Your task to perform on an android device: Show me recent news Image 0: 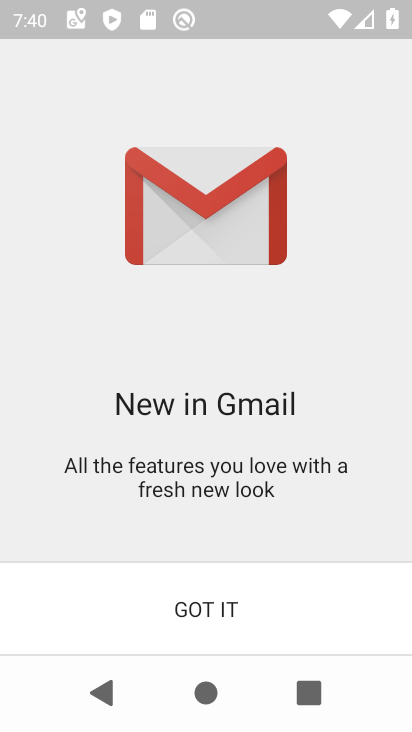
Step 0: press home button
Your task to perform on an android device: Show me recent news Image 1: 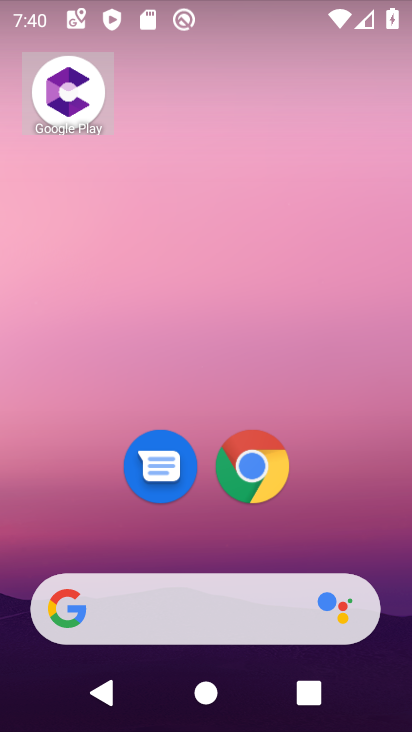
Step 1: drag from (386, 565) to (335, 36)
Your task to perform on an android device: Show me recent news Image 2: 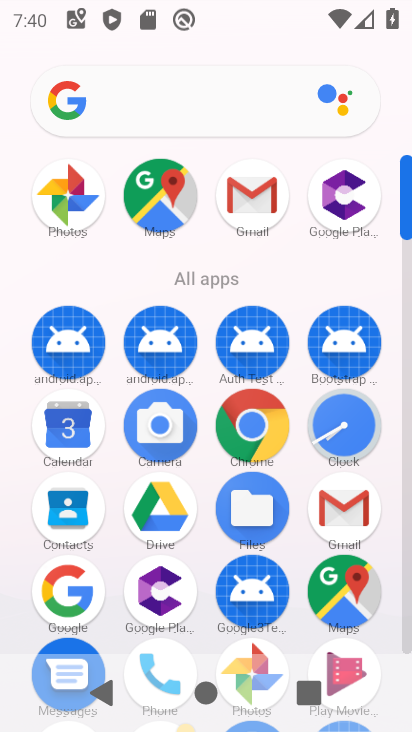
Step 2: click (249, 419)
Your task to perform on an android device: Show me recent news Image 3: 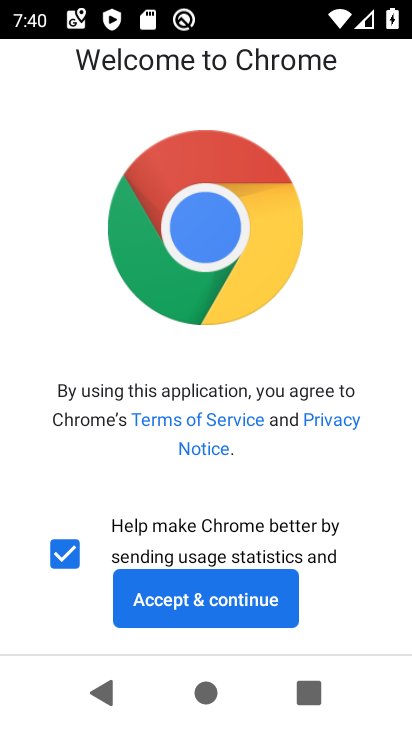
Step 3: click (259, 589)
Your task to perform on an android device: Show me recent news Image 4: 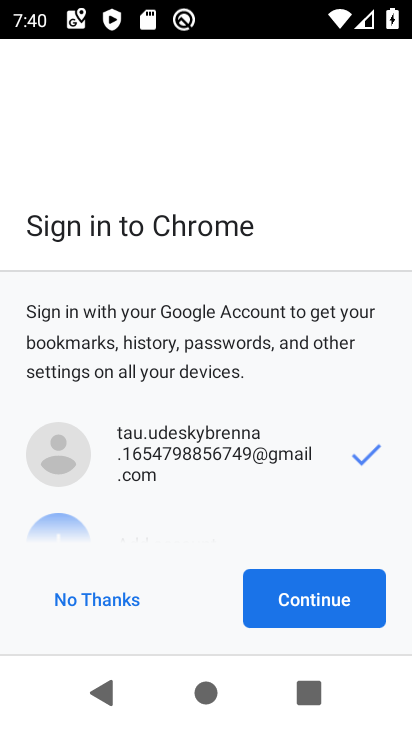
Step 4: click (311, 589)
Your task to perform on an android device: Show me recent news Image 5: 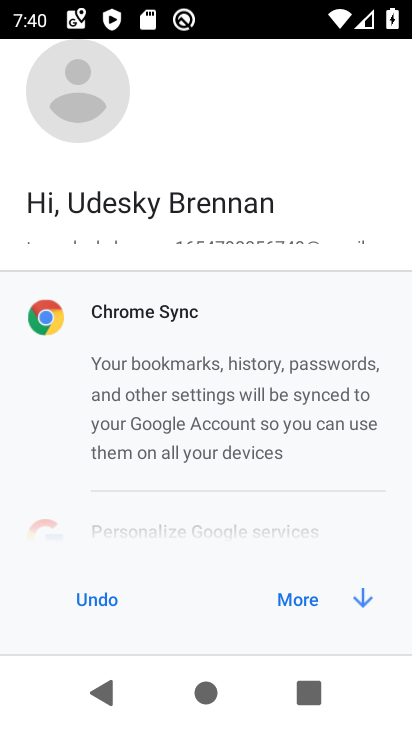
Step 5: click (311, 589)
Your task to perform on an android device: Show me recent news Image 6: 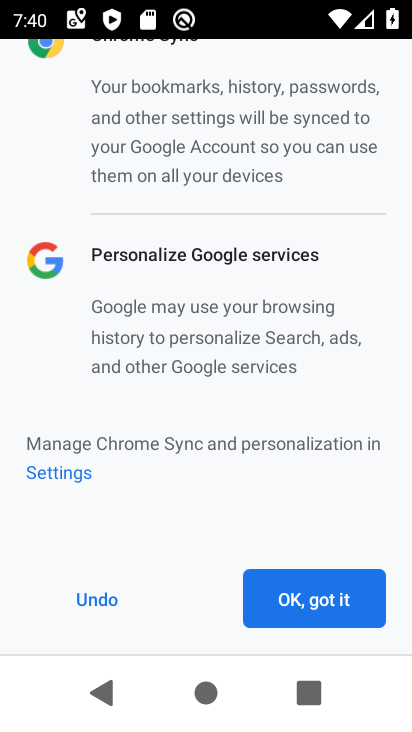
Step 6: click (311, 589)
Your task to perform on an android device: Show me recent news Image 7: 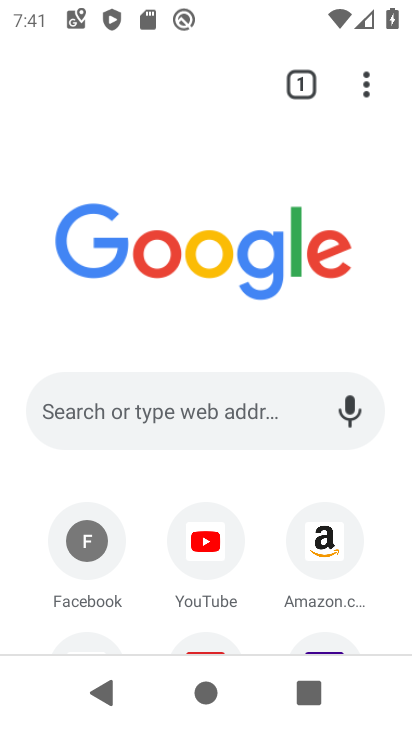
Step 7: click (215, 432)
Your task to perform on an android device: Show me recent news Image 8: 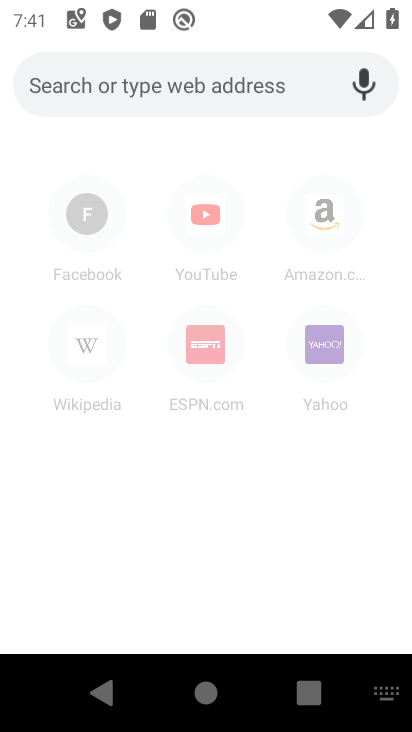
Step 8: type "news"
Your task to perform on an android device: Show me recent news Image 9: 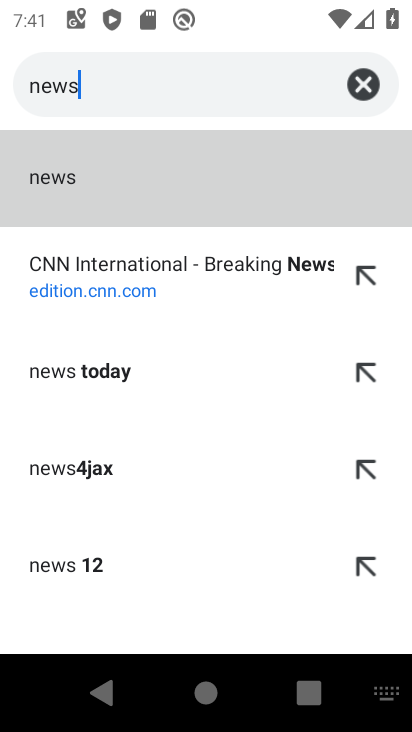
Step 9: click (85, 204)
Your task to perform on an android device: Show me recent news Image 10: 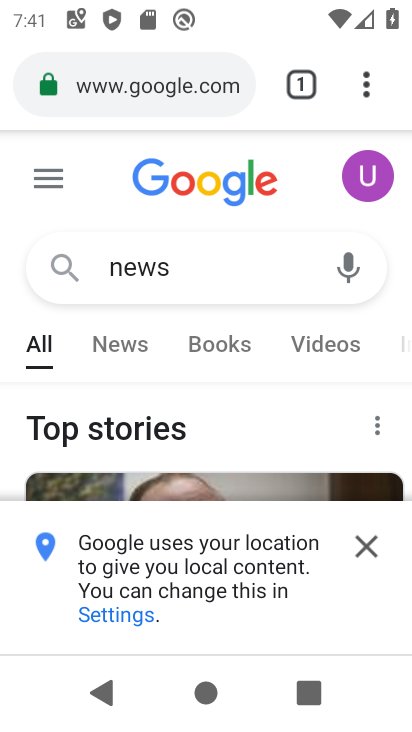
Step 10: click (371, 550)
Your task to perform on an android device: Show me recent news Image 11: 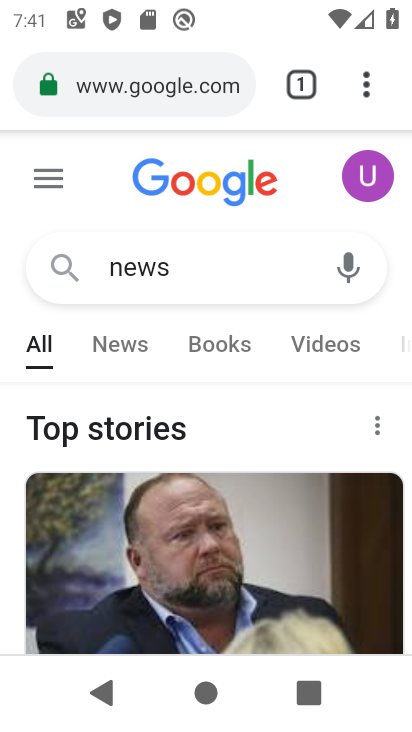
Step 11: drag from (263, 374) to (237, 61)
Your task to perform on an android device: Show me recent news Image 12: 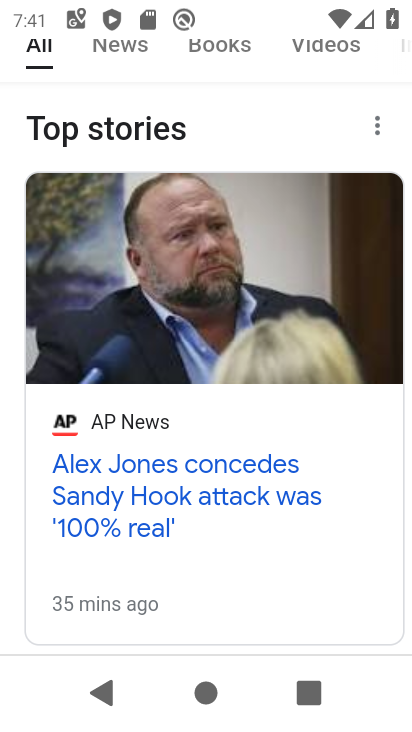
Step 12: drag from (317, 602) to (343, 202)
Your task to perform on an android device: Show me recent news Image 13: 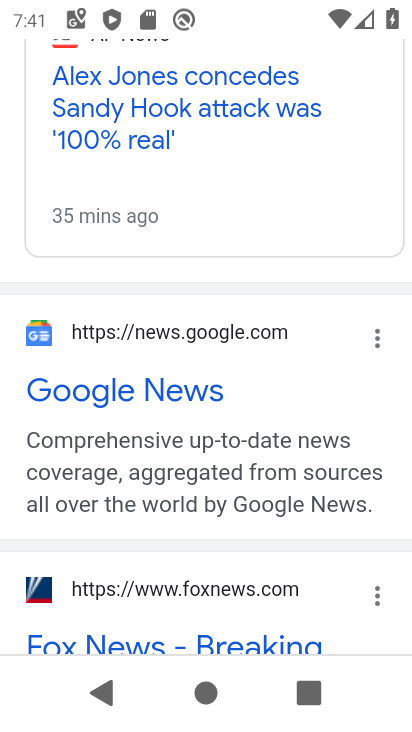
Step 13: click (204, 395)
Your task to perform on an android device: Show me recent news Image 14: 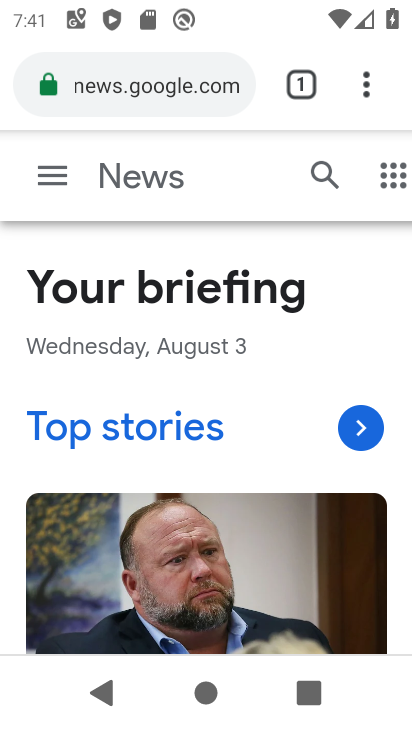
Step 14: task complete